Your task to perform on an android device: Search for seafood restaurants on Google Maps Image 0: 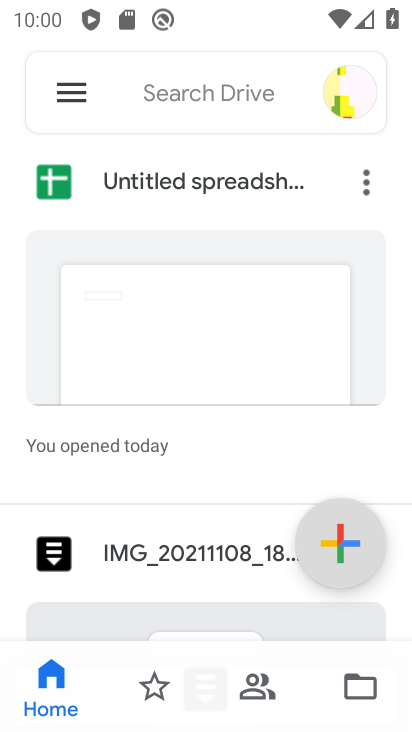
Step 0: press home button
Your task to perform on an android device: Search for seafood restaurants on Google Maps Image 1: 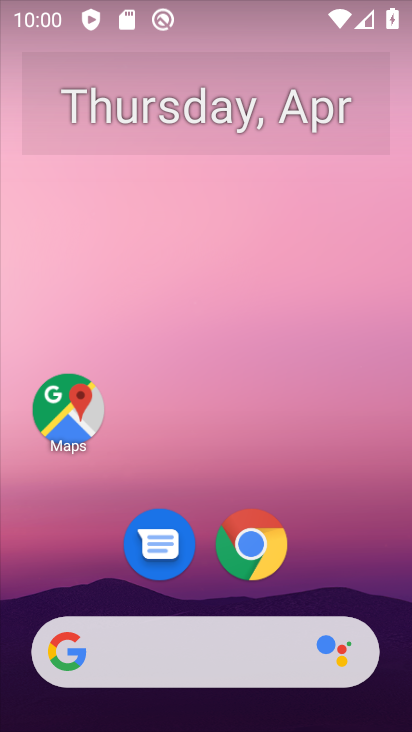
Step 1: click (67, 410)
Your task to perform on an android device: Search for seafood restaurants on Google Maps Image 2: 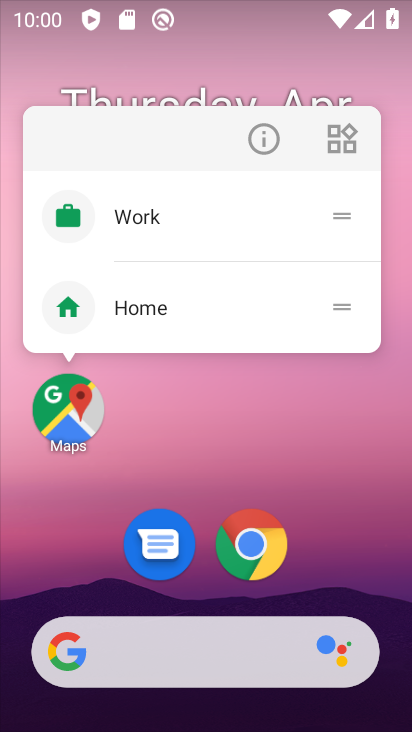
Step 2: click (221, 450)
Your task to perform on an android device: Search for seafood restaurants on Google Maps Image 3: 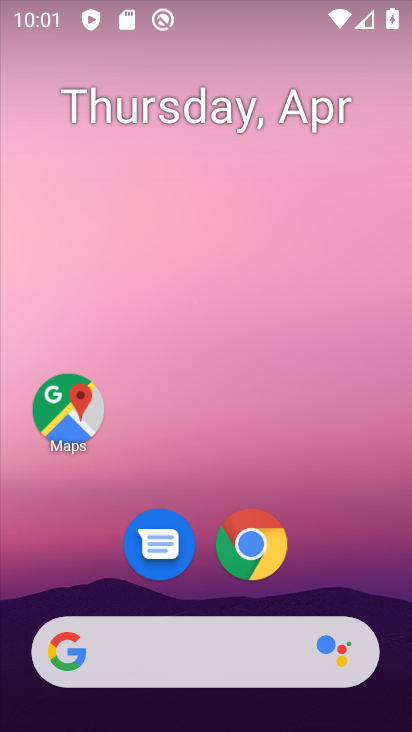
Step 3: click (63, 399)
Your task to perform on an android device: Search for seafood restaurants on Google Maps Image 4: 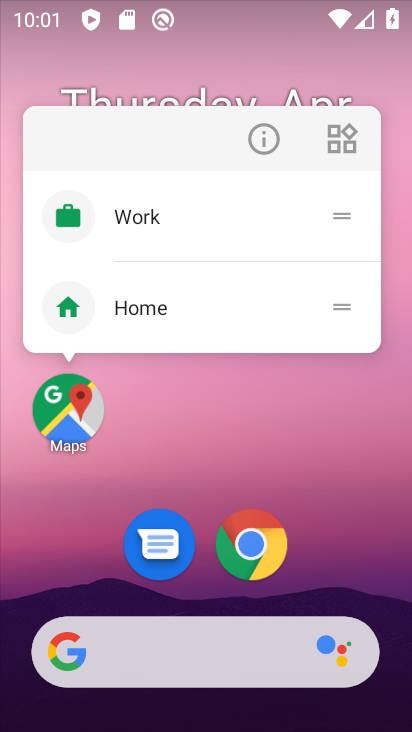
Step 4: click (272, 142)
Your task to perform on an android device: Search for seafood restaurants on Google Maps Image 5: 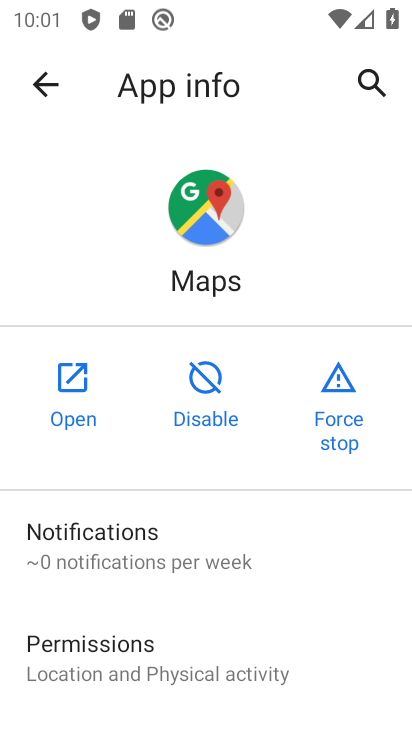
Step 5: click (70, 402)
Your task to perform on an android device: Search for seafood restaurants on Google Maps Image 6: 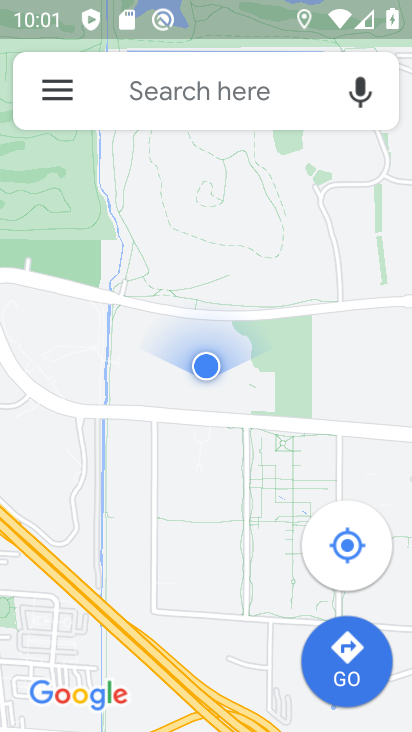
Step 6: click (254, 88)
Your task to perform on an android device: Search for seafood restaurants on Google Maps Image 7: 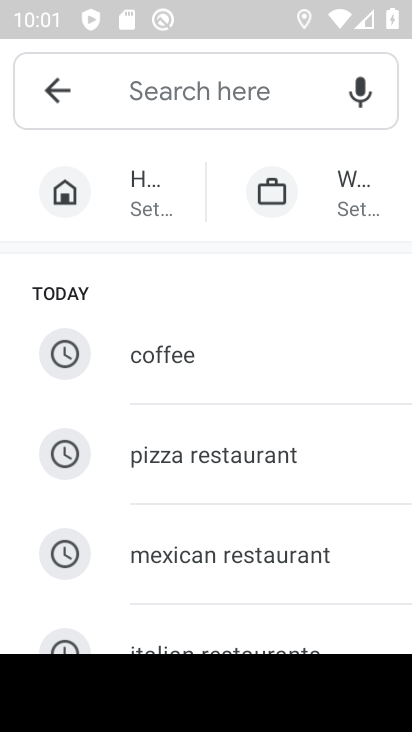
Step 7: drag from (65, 556) to (208, 254)
Your task to perform on an android device: Search for seafood restaurants on Google Maps Image 8: 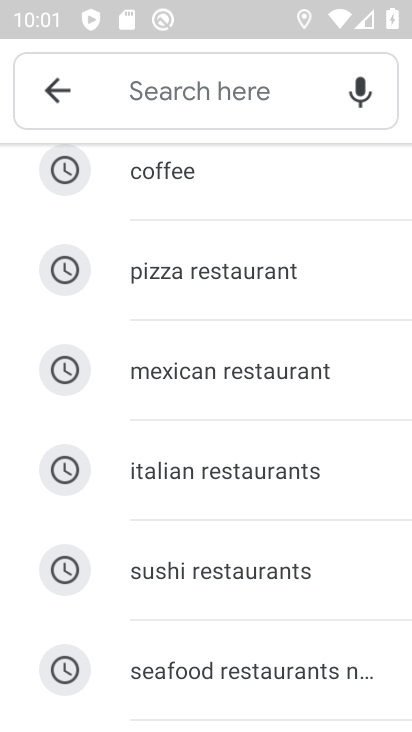
Step 8: click (168, 687)
Your task to perform on an android device: Search for seafood restaurants on Google Maps Image 9: 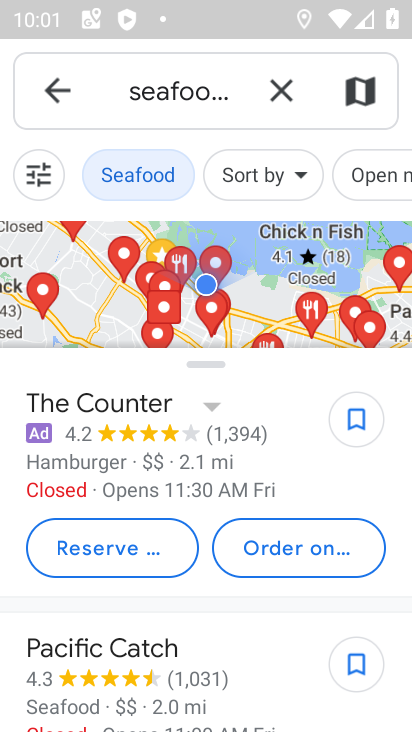
Step 9: task complete